Your task to perform on an android device: Show me popular games on the Play Store Image 0: 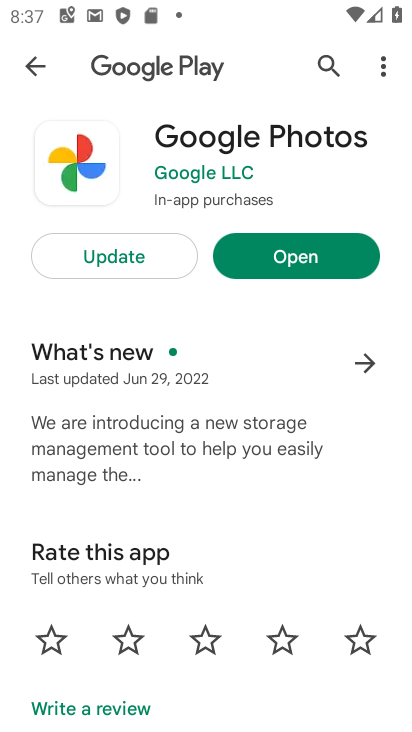
Step 0: press home button
Your task to perform on an android device: Show me popular games on the Play Store Image 1: 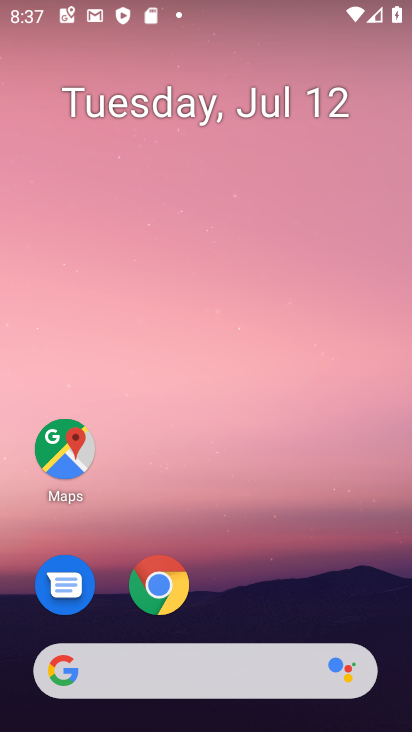
Step 1: drag from (252, 576) to (286, 134)
Your task to perform on an android device: Show me popular games on the Play Store Image 2: 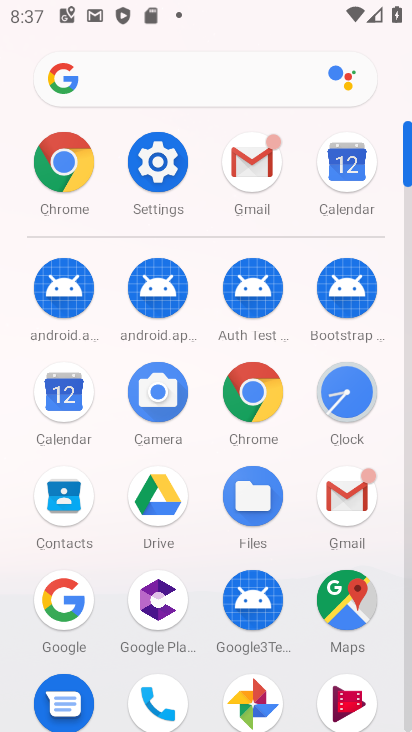
Step 2: drag from (206, 568) to (225, 346)
Your task to perform on an android device: Show me popular games on the Play Store Image 3: 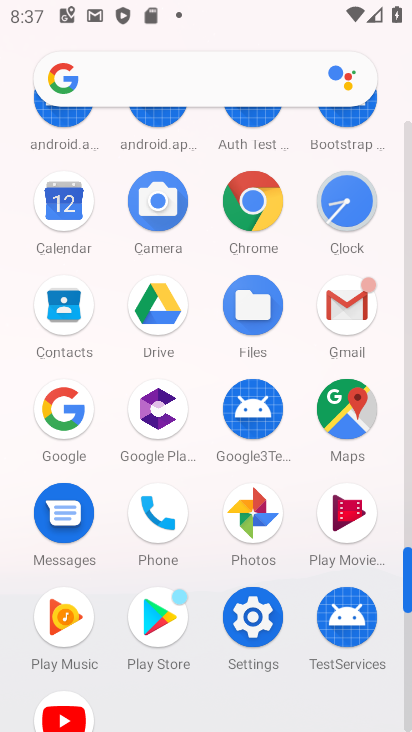
Step 3: click (159, 613)
Your task to perform on an android device: Show me popular games on the Play Store Image 4: 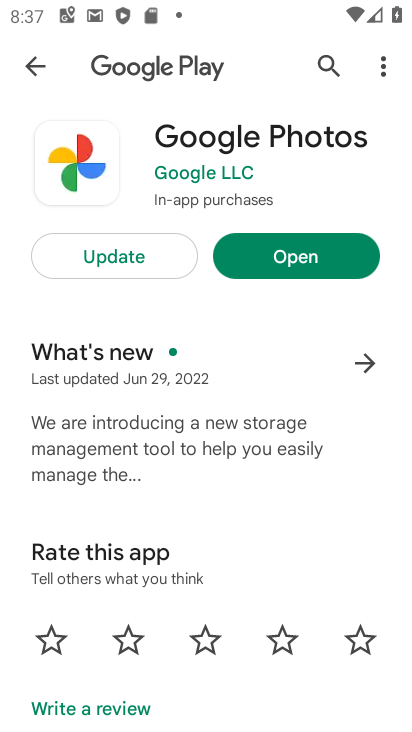
Step 4: click (40, 62)
Your task to perform on an android device: Show me popular games on the Play Store Image 5: 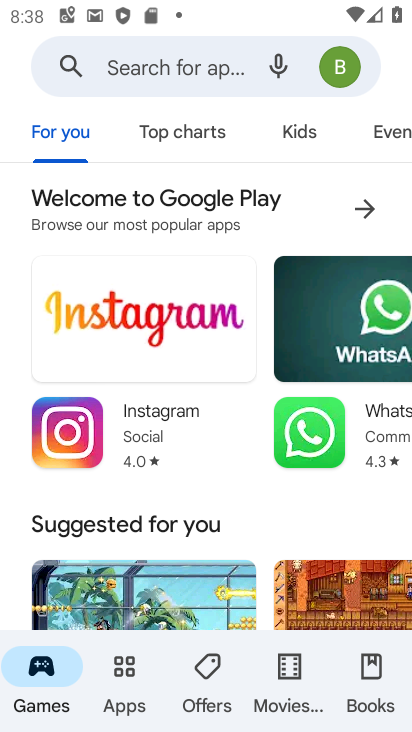
Step 5: drag from (233, 464) to (288, 197)
Your task to perform on an android device: Show me popular games on the Play Store Image 6: 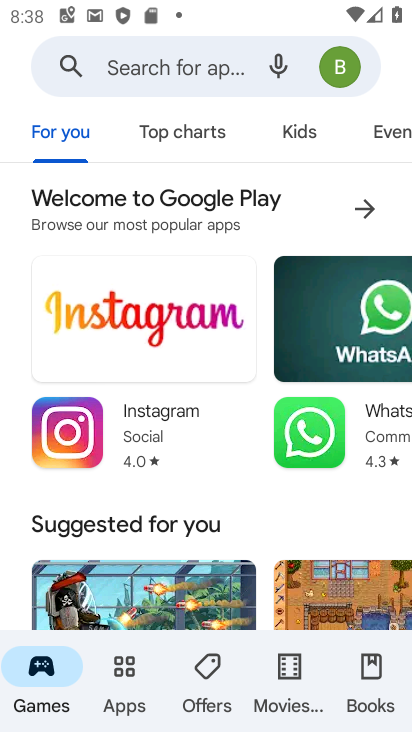
Step 6: drag from (300, 516) to (309, 132)
Your task to perform on an android device: Show me popular games on the Play Store Image 7: 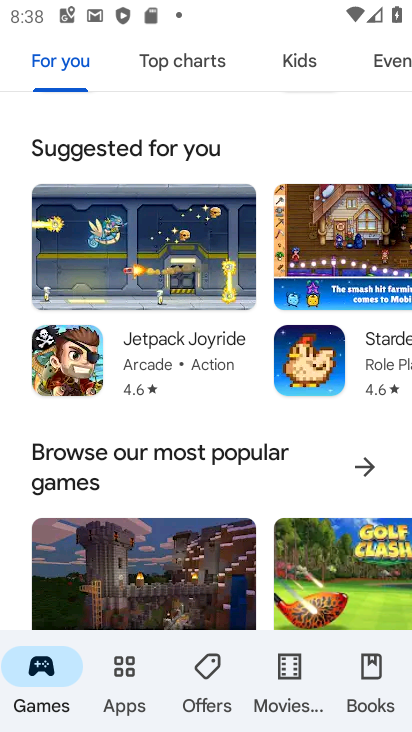
Step 7: click (361, 458)
Your task to perform on an android device: Show me popular games on the Play Store Image 8: 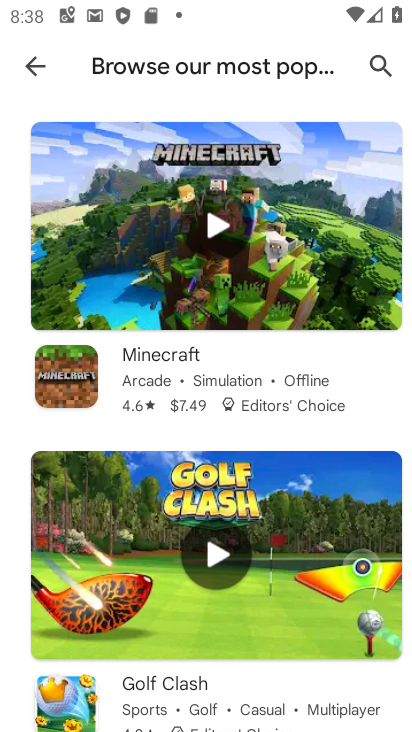
Step 8: task complete